Your task to perform on an android device: open app "Adobe Express: Graphic Design" Image 0: 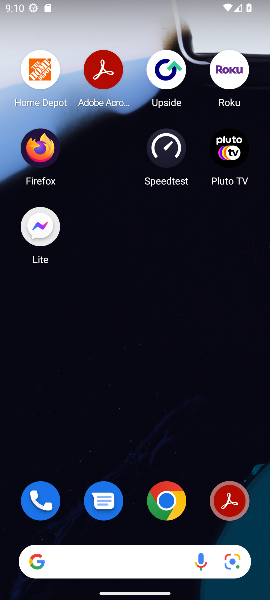
Step 0: drag from (221, 377) to (227, 141)
Your task to perform on an android device: open app "Adobe Express: Graphic Design" Image 1: 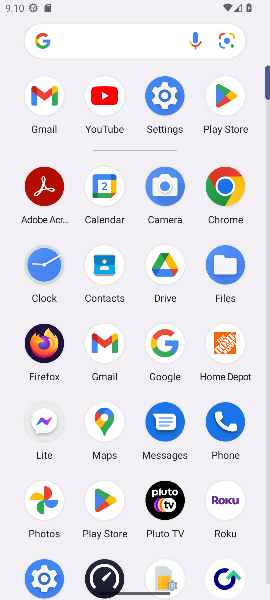
Step 1: click (215, 91)
Your task to perform on an android device: open app "Adobe Express: Graphic Design" Image 2: 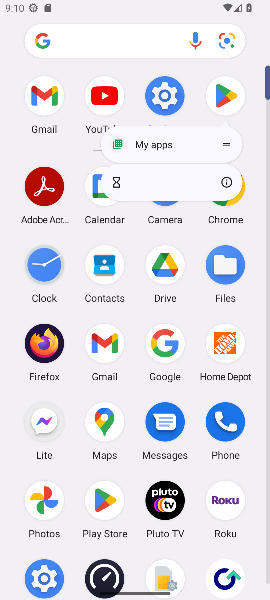
Step 2: click (224, 186)
Your task to perform on an android device: open app "Adobe Express: Graphic Design" Image 3: 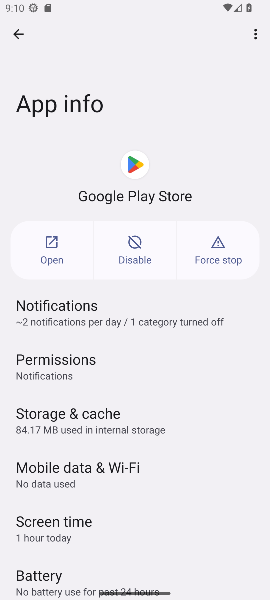
Step 3: click (48, 244)
Your task to perform on an android device: open app "Adobe Express: Graphic Design" Image 4: 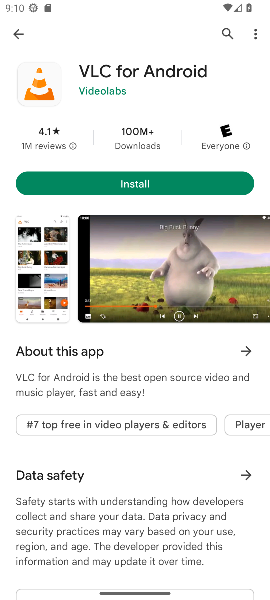
Step 4: drag from (187, 98) to (157, 538)
Your task to perform on an android device: open app "Adobe Express: Graphic Design" Image 5: 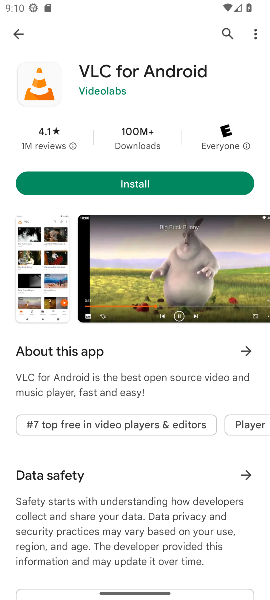
Step 5: drag from (180, 107) to (115, 578)
Your task to perform on an android device: open app "Adobe Express: Graphic Design" Image 6: 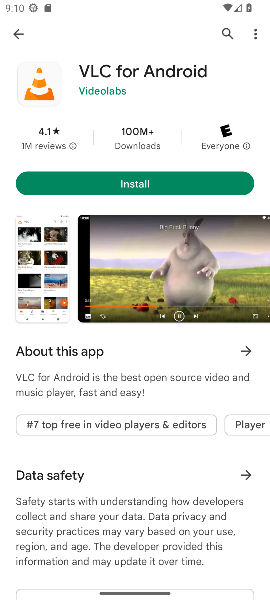
Step 6: click (219, 33)
Your task to perform on an android device: open app "Adobe Express: Graphic Design" Image 7: 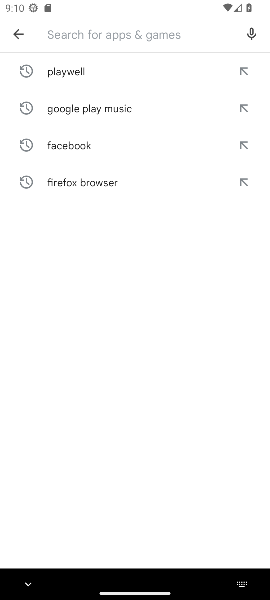
Step 7: type "Adobe Express: Graphic Design"
Your task to perform on an android device: open app "Adobe Express: Graphic Design" Image 8: 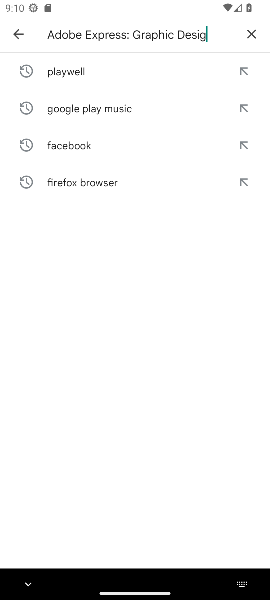
Step 8: type ""
Your task to perform on an android device: open app "Adobe Express: Graphic Design" Image 9: 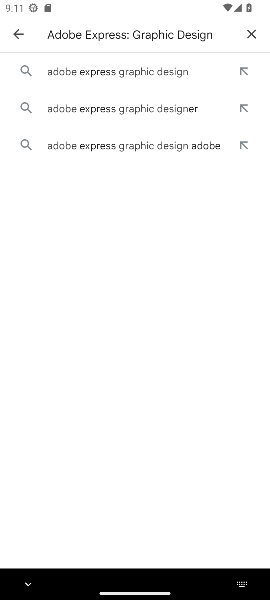
Step 9: click (131, 78)
Your task to perform on an android device: open app "Adobe Express: Graphic Design" Image 10: 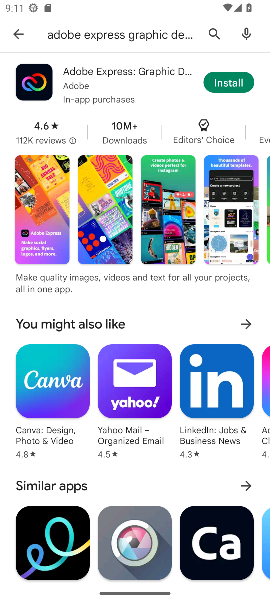
Step 10: click (109, 83)
Your task to perform on an android device: open app "Adobe Express: Graphic Design" Image 11: 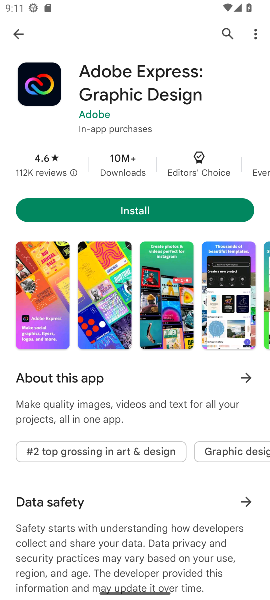
Step 11: task complete